Your task to perform on an android device: Open calendar and show me the fourth week of next month Image 0: 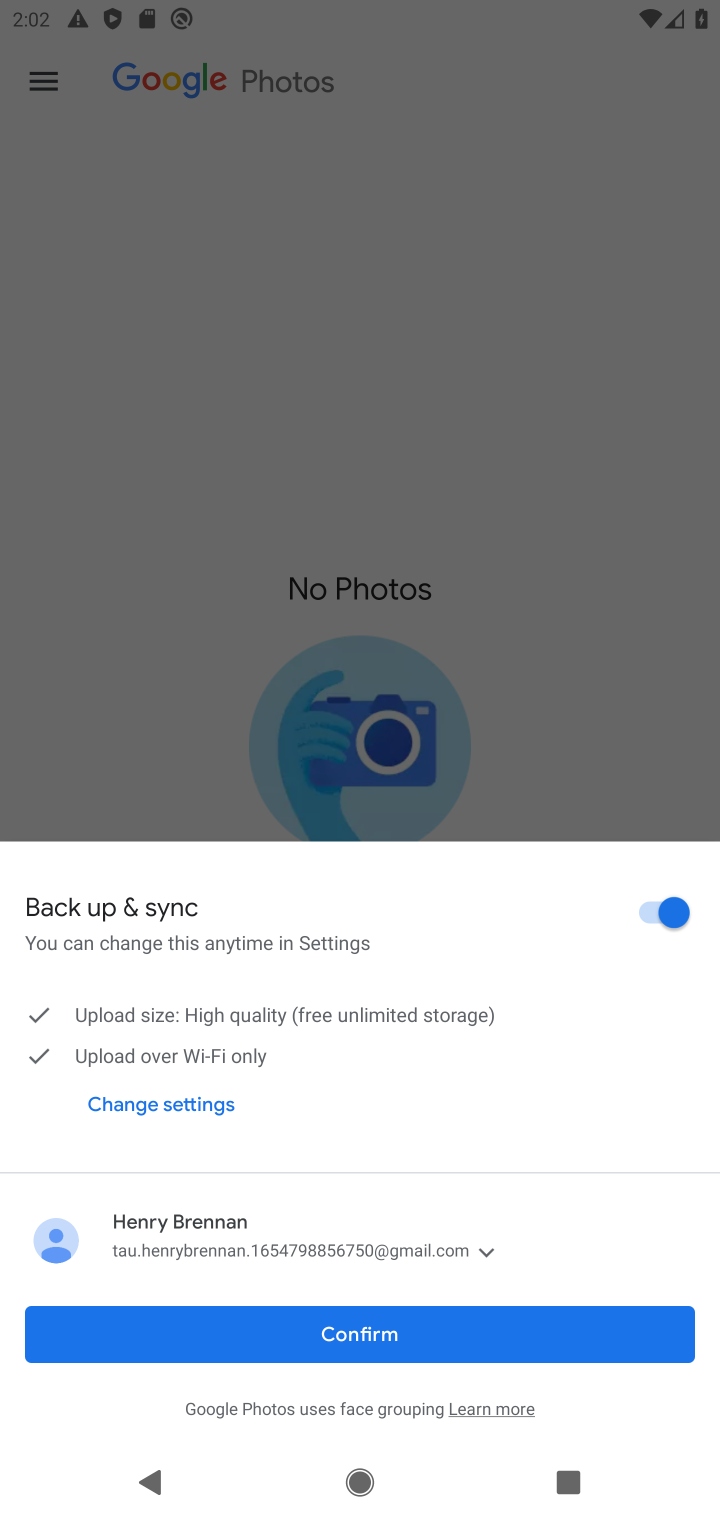
Step 0: click (470, 1351)
Your task to perform on an android device: Open calendar and show me the fourth week of next month Image 1: 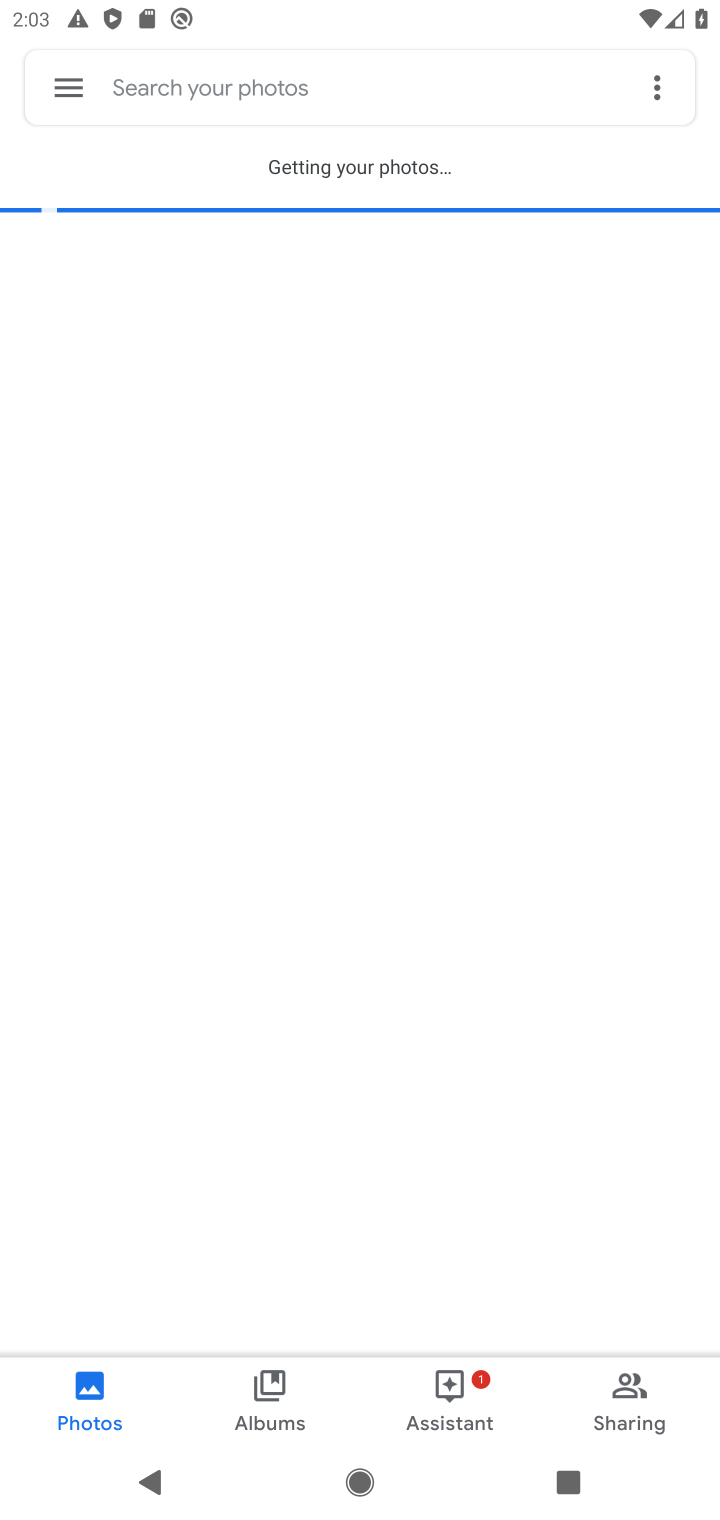
Step 1: press home button
Your task to perform on an android device: Open calendar and show me the fourth week of next month Image 2: 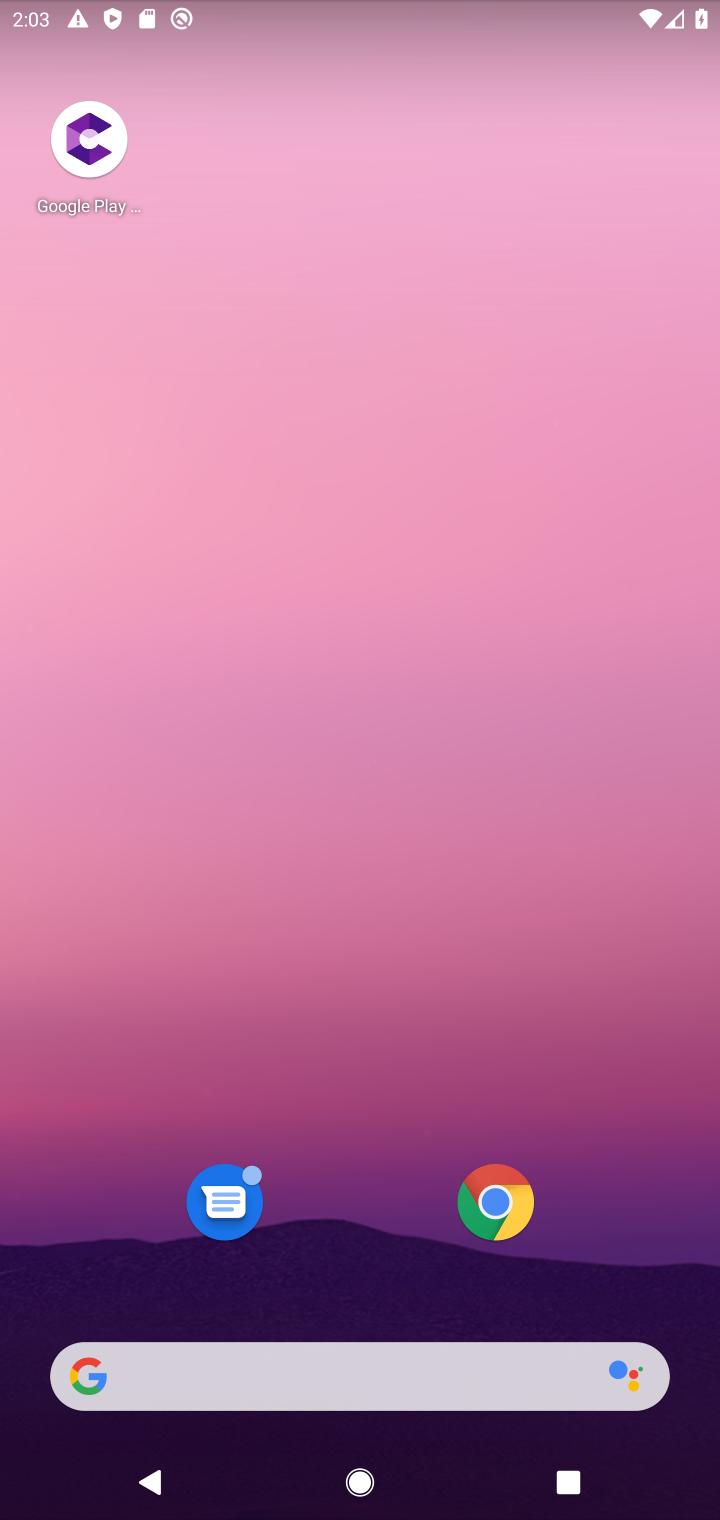
Step 2: drag from (405, 1351) to (418, 92)
Your task to perform on an android device: Open calendar and show me the fourth week of next month Image 3: 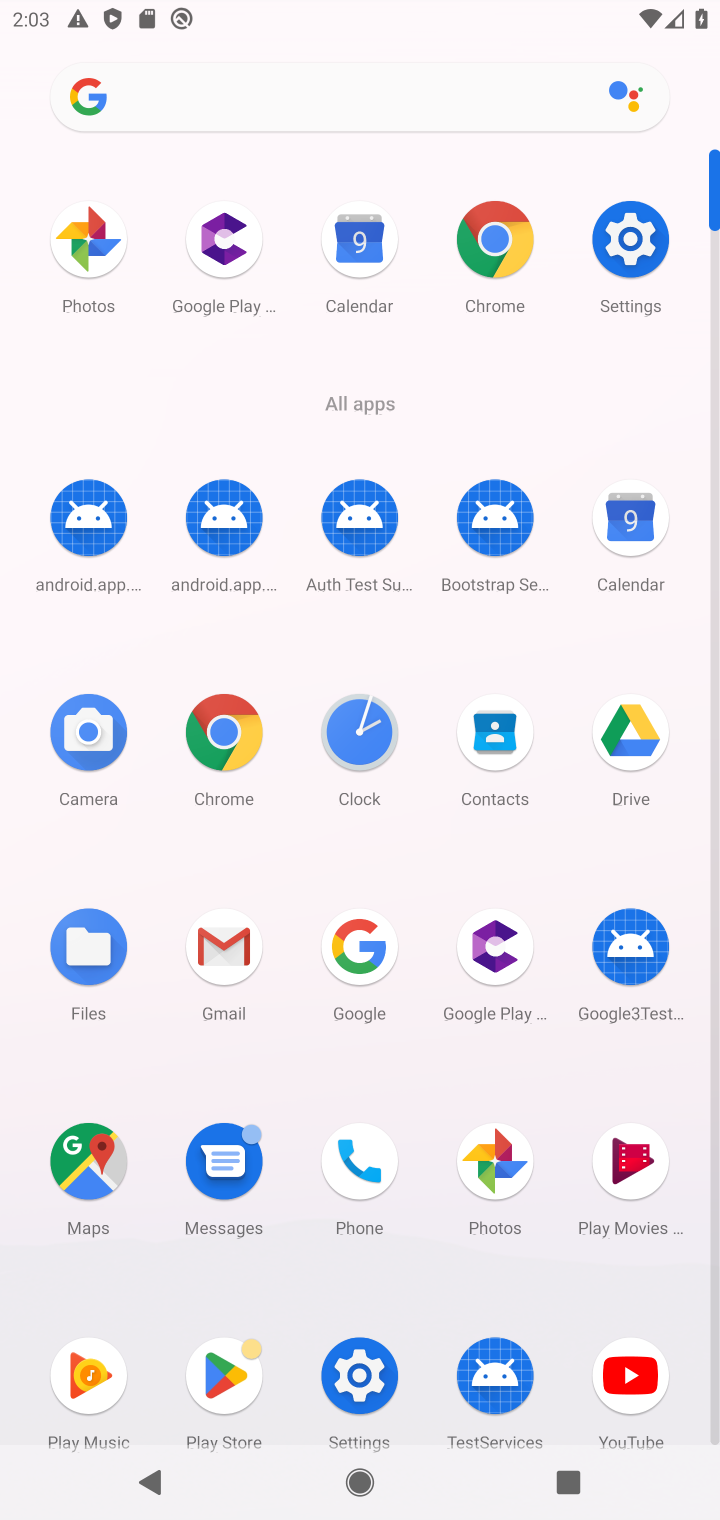
Step 3: click (633, 519)
Your task to perform on an android device: Open calendar and show me the fourth week of next month Image 4: 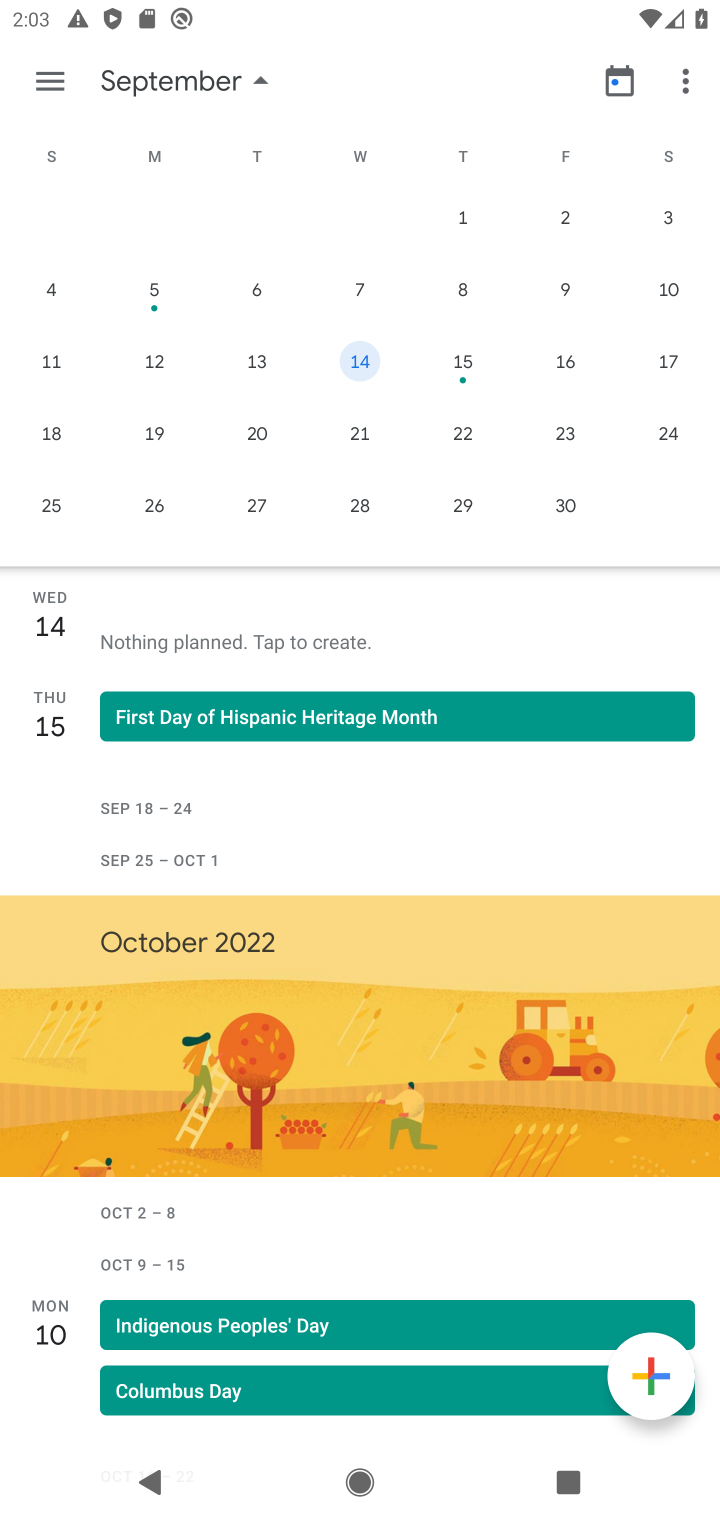
Step 4: click (338, 429)
Your task to perform on an android device: Open calendar and show me the fourth week of next month Image 5: 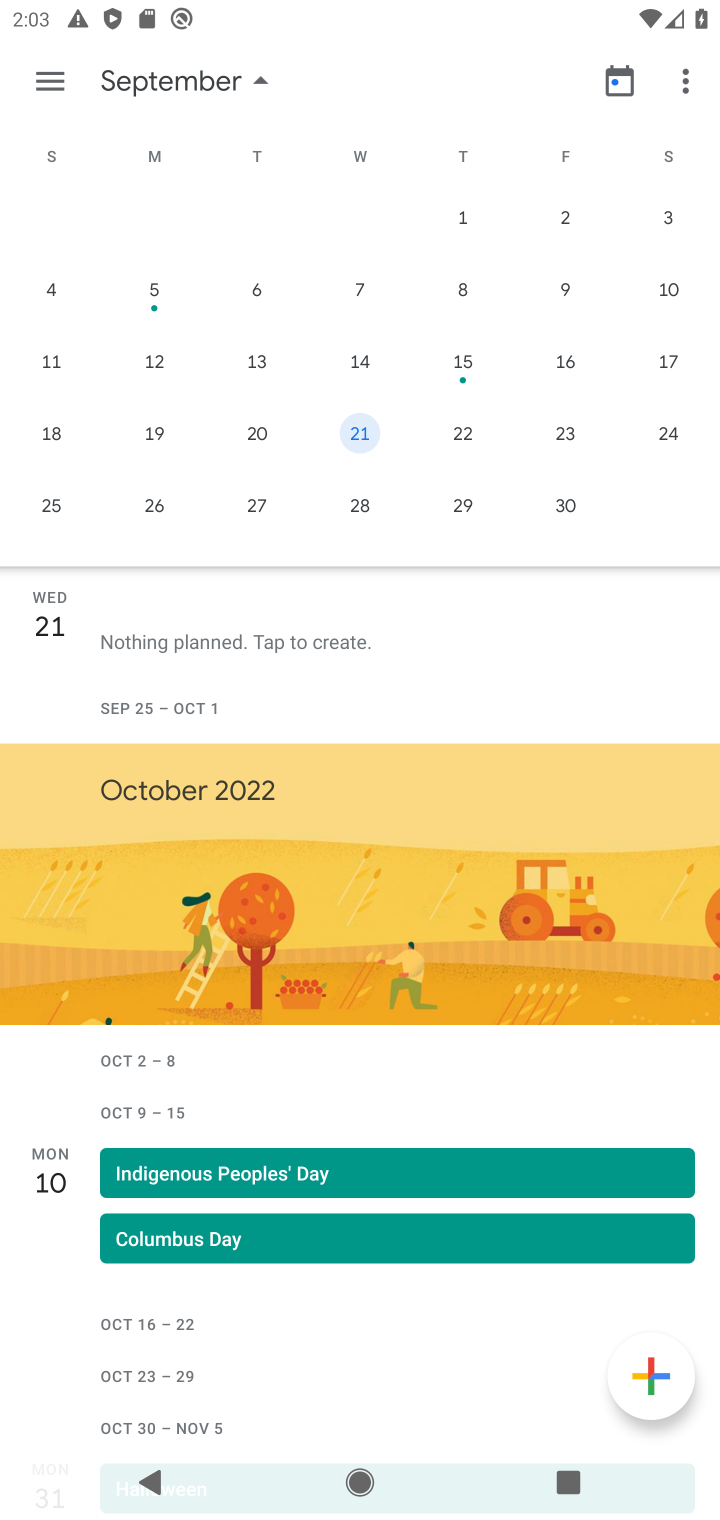
Step 5: click (50, 79)
Your task to perform on an android device: Open calendar and show me the fourth week of next month Image 6: 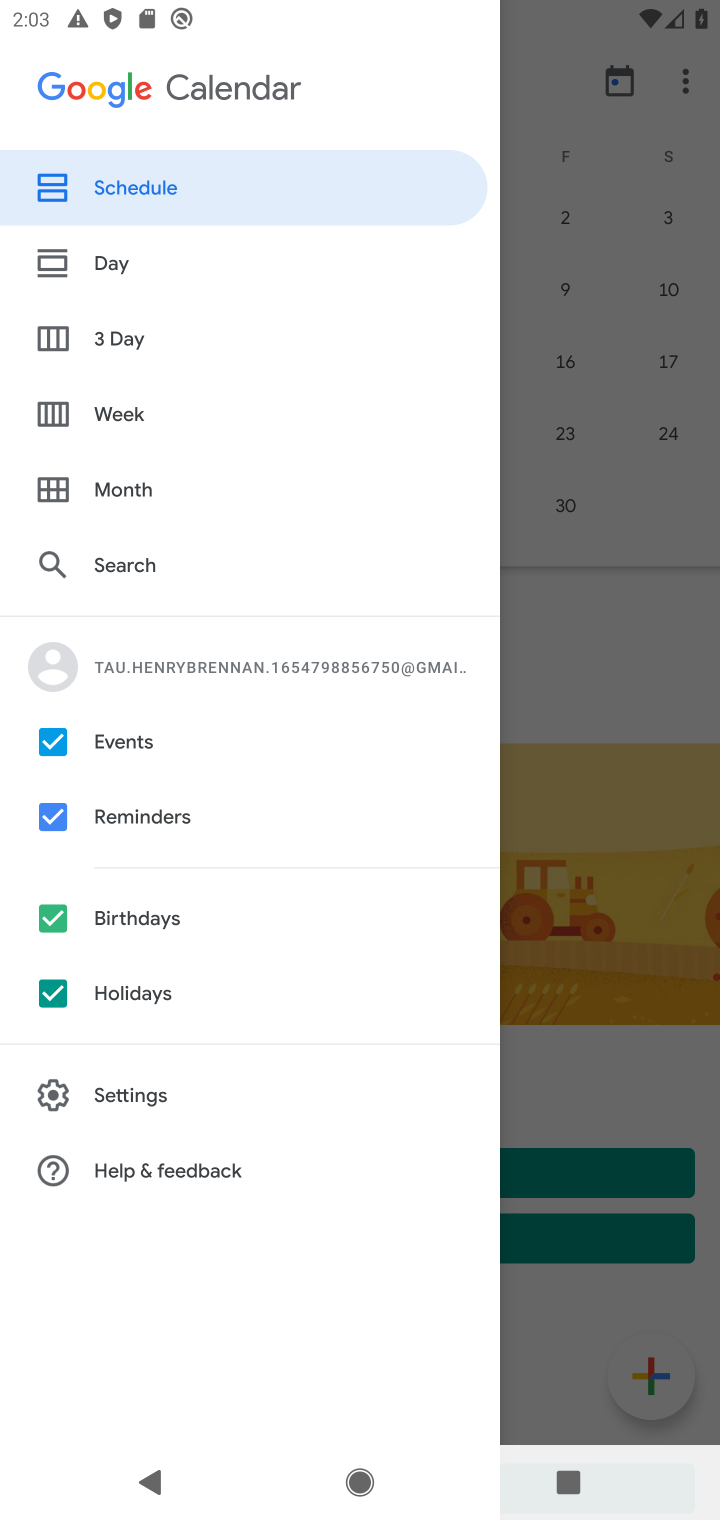
Step 6: click (113, 405)
Your task to perform on an android device: Open calendar and show me the fourth week of next month Image 7: 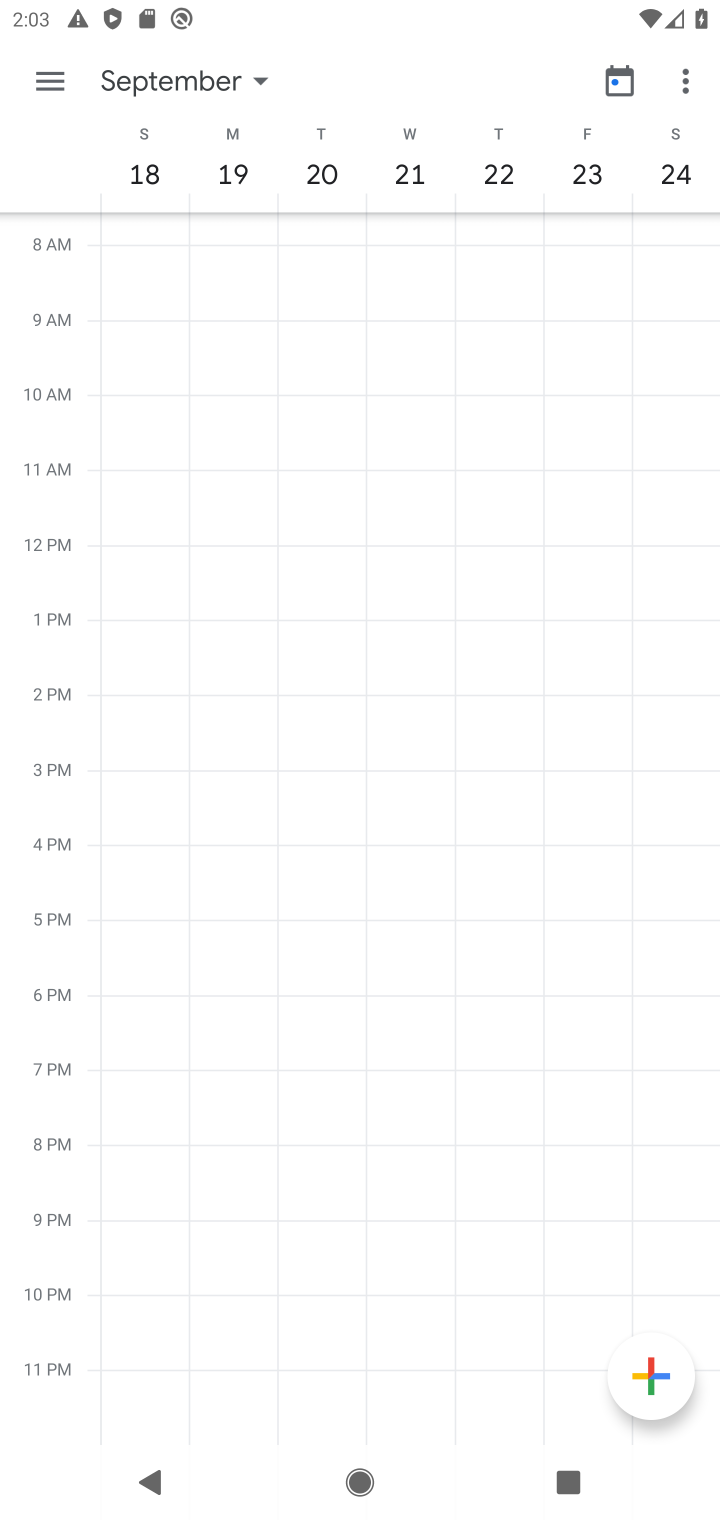
Step 7: task complete